Your task to perform on an android device: turn on wifi Image 0: 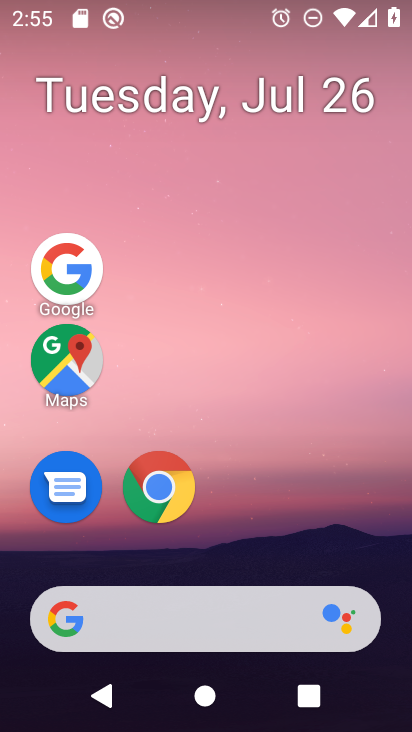
Step 0: drag from (245, 618) to (255, 96)
Your task to perform on an android device: turn on wifi Image 1: 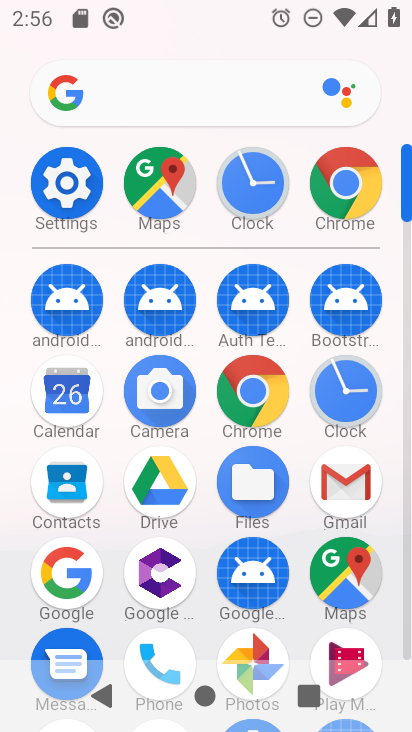
Step 1: click (52, 217)
Your task to perform on an android device: turn on wifi Image 2: 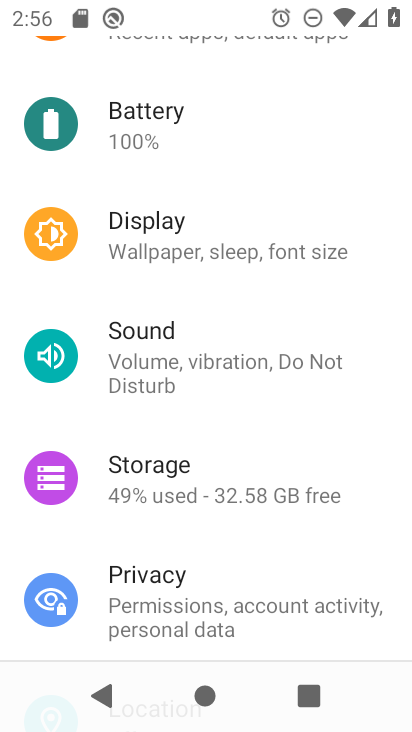
Step 2: drag from (134, 247) to (158, 666)
Your task to perform on an android device: turn on wifi Image 3: 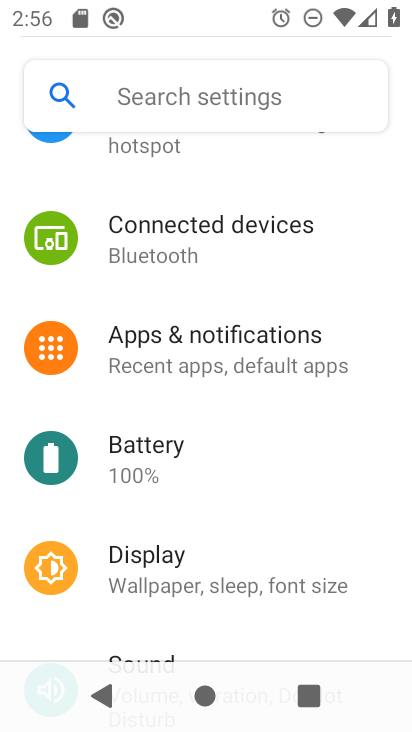
Step 3: drag from (210, 265) to (217, 397)
Your task to perform on an android device: turn on wifi Image 4: 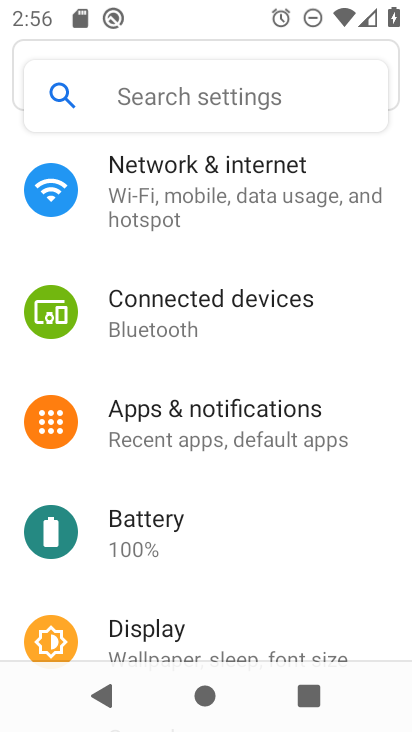
Step 4: click (238, 208)
Your task to perform on an android device: turn on wifi Image 5: 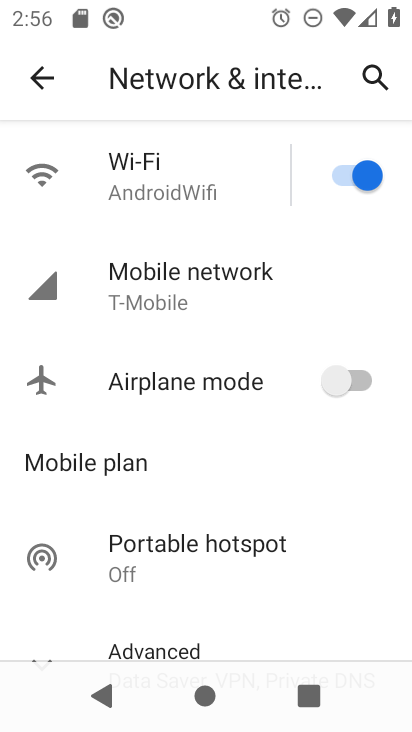
Step 5: task complete